Your task to perform on an android device: Open the calendar and show me this week's events? Image 0: 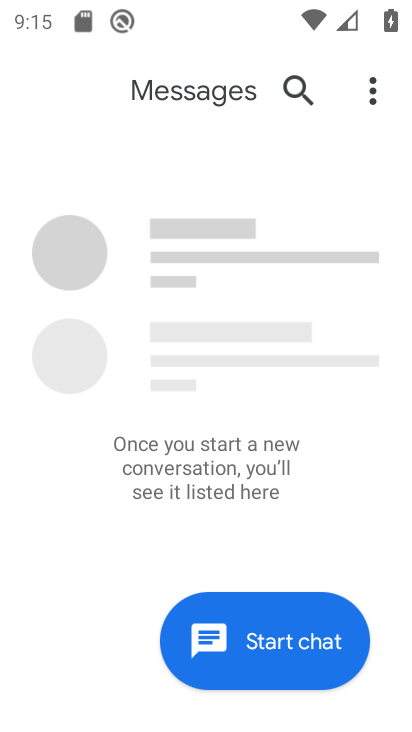
Step 0: drag from (236, 464) to (292, 133)
Your task to perform on an android device: Open the calendar and show me this week's events? Image 1: 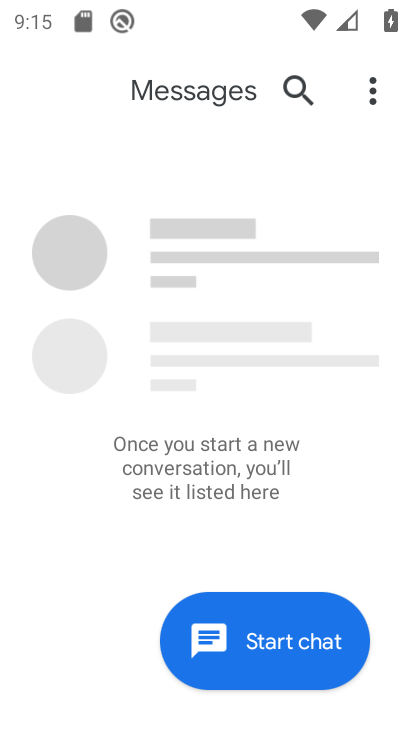
Step 1: click (375, 83)
Your task to perform on an android device: Open the calendar and show me this week's events? Image 2: 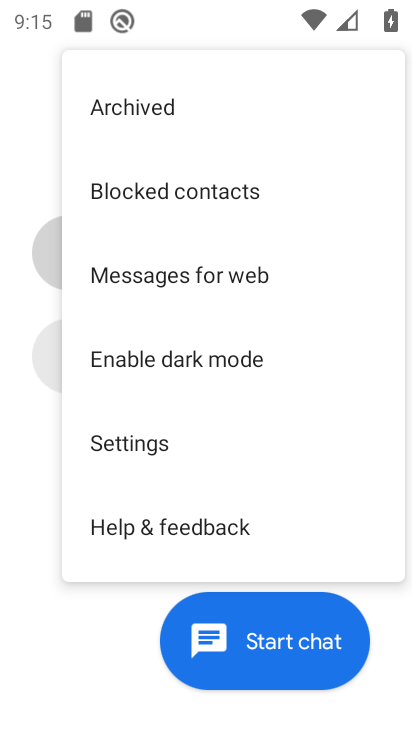
Step 2: press home button
Your task to perform on an android device: Open the calendar and show me this week's events? Image 3: 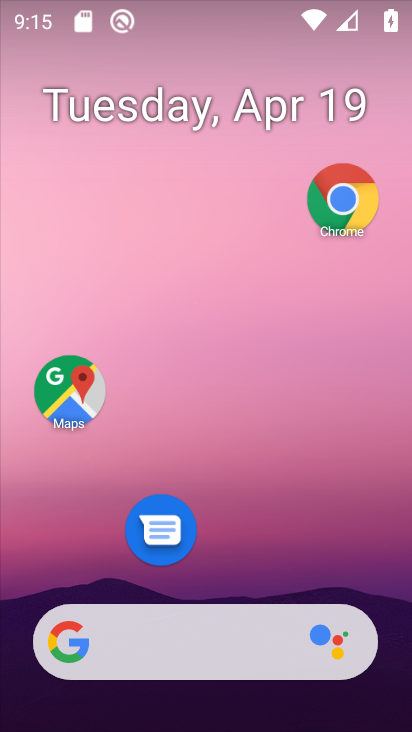
Step 3: drag from (210, 585) to (342, 85)
Your task to perform on an android device: Open the calendar and show me this week's events? Image 4: 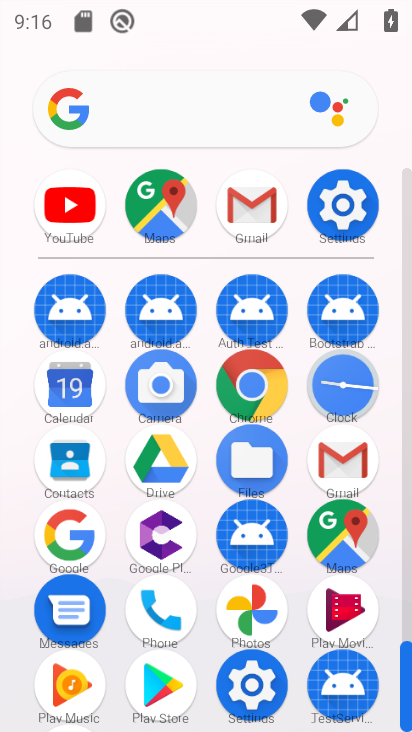
Step 4: click (63, 396)
Your task to perform on an android device: Open the calendar and show me this week's events? Image 5: 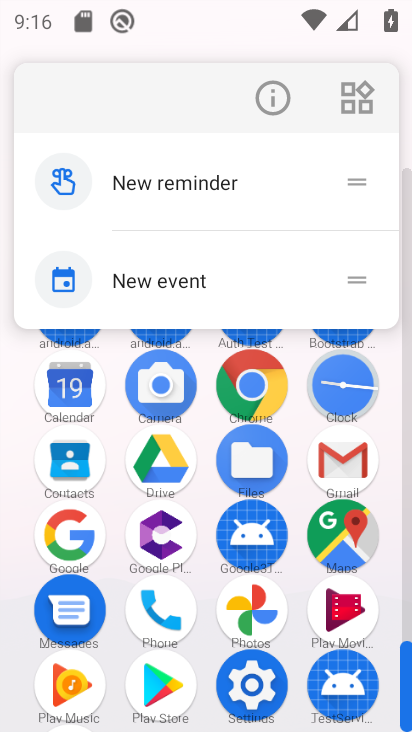
Step 5: click (270, 93)
Your task to perform on an android device: Open the calendar and show me this week's events? Image 6: 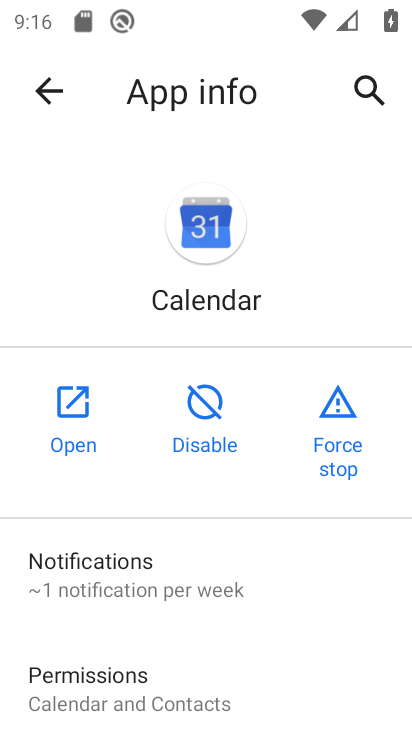
Step 6: click (54, 418)
Your task to perform on an android device: Open the calendar and show me this week's events? Image 7: 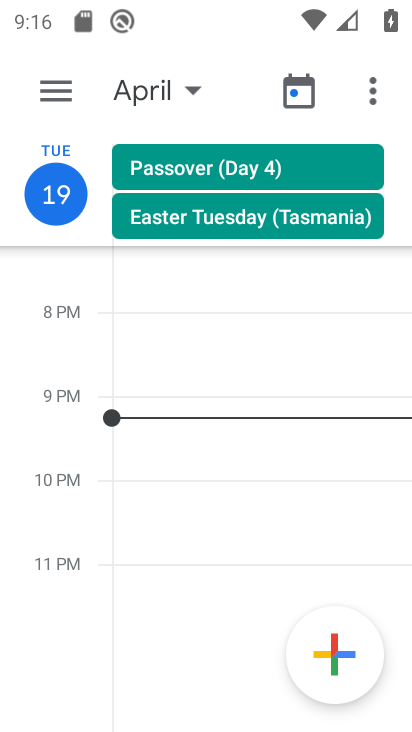
Step 7: click (47, 95)
Your task to perform on an android device: Open the calendar and show me this week's events? Image 8: 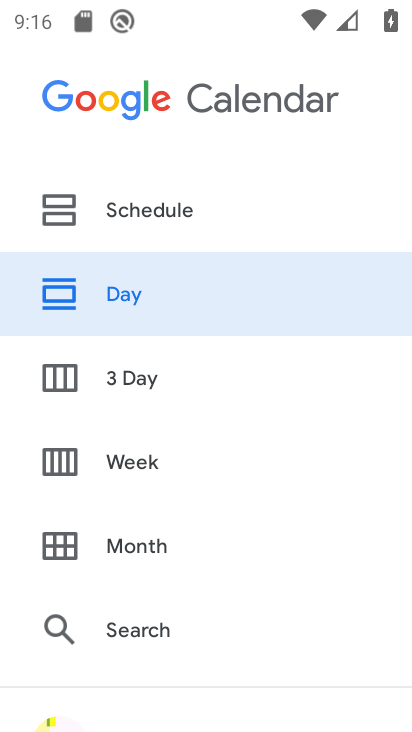
Step 8: drag from (207, 466) to (295, 137)
Your task to perform on an android device: Open the calendar and show me this week's events? Image 9: 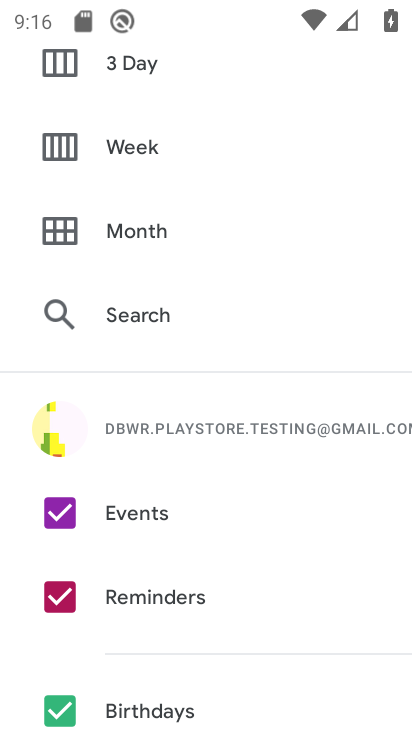
Step 9: drag from (172, 490) to (274, 103)
Your task to perform on an android device: Open the calendar and show me this week's events? Image 10: 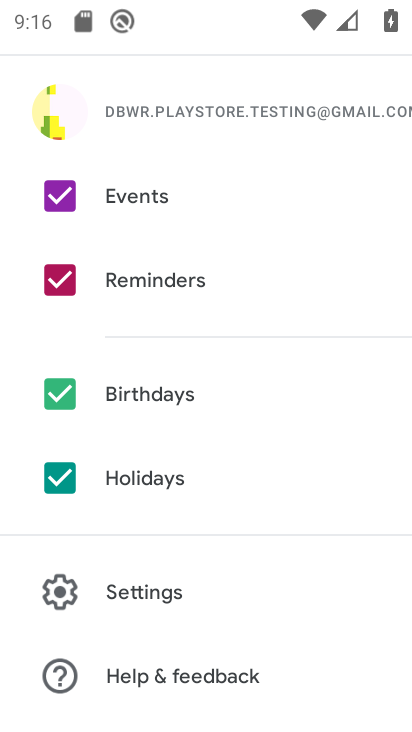
Step 10: drag from (293, 259) to (276, 715)
Your task to perform on an android device: Open the calendar and show me this week's events? Image 11: 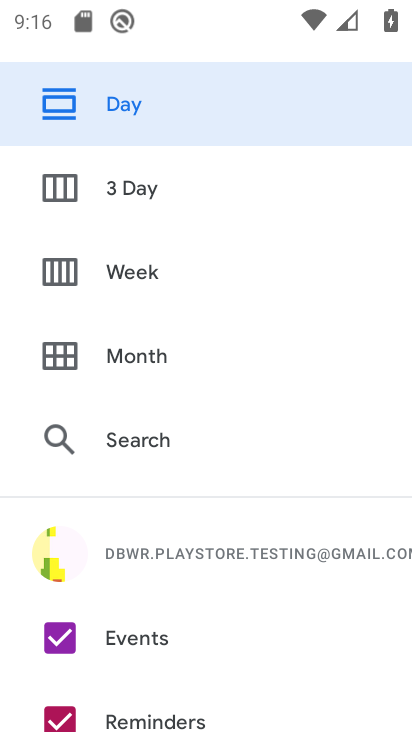
Step 11: drag from (248, 432) to (377, 103)
Your task to perform on an android device: Open the calendar and show me this week's events? Image 12: 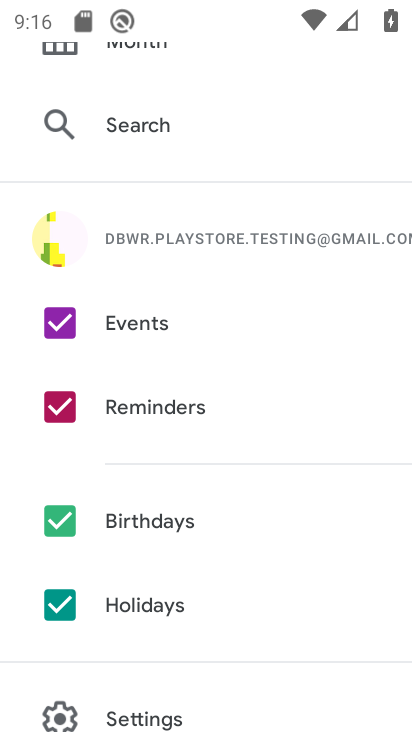
Step 12: click (67, 590)
Your task to perform on an android device: Open the calendar and show me this week's events? Image 13: 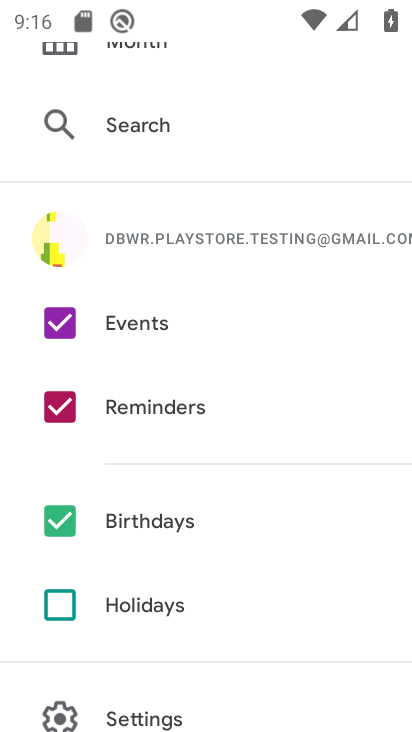
Step 13: click (65, 513)
Your task to perform on an android device: Open the calendar and show me this week's events? Image 14: 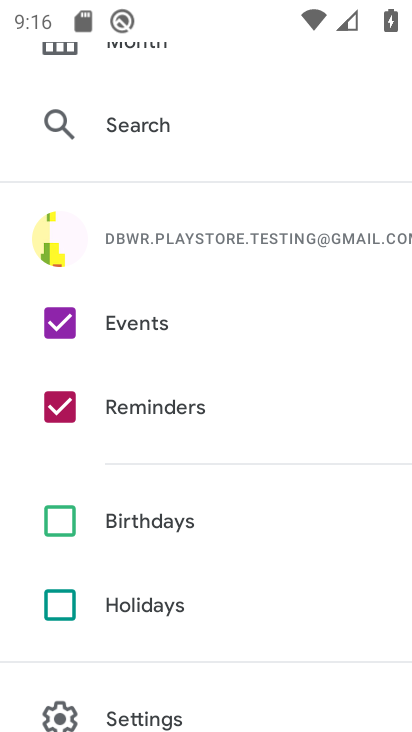
Step 14: click (59, 416)
Your task to perform on an android device: Open the calendar and show me this week's events? Image 15: 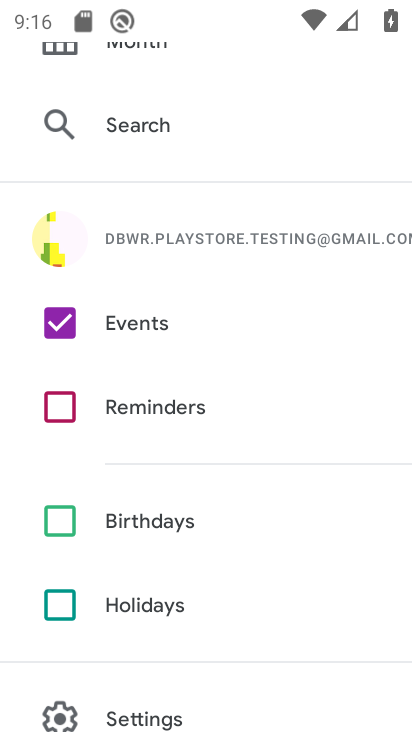
Step 15: task complete